Your task to perform on an android device: Go to privacy settings Image 0: 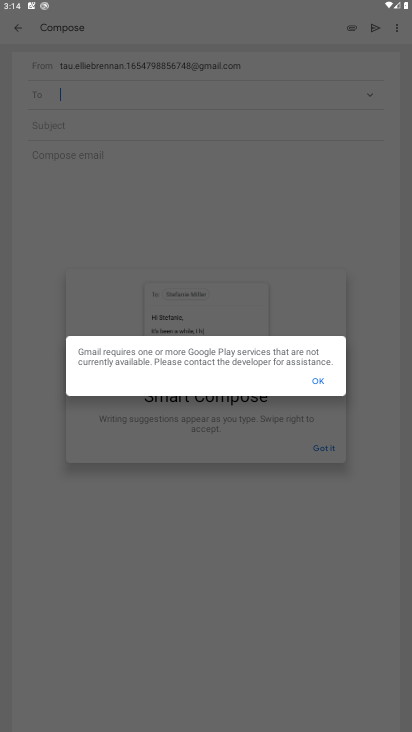
Step 0: press home button
Your task to perform on an android device: Go to privacy settings Image 1: 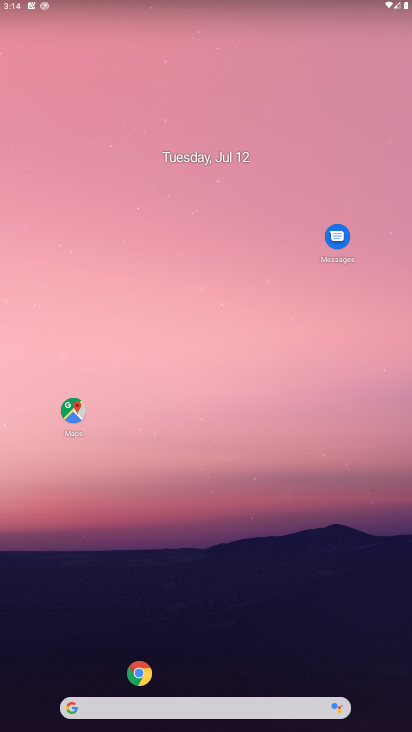
Step 1: drag from (29, 702) to (253, 4)
Your task to perform on an android device: Go to privacy settings Image 2: 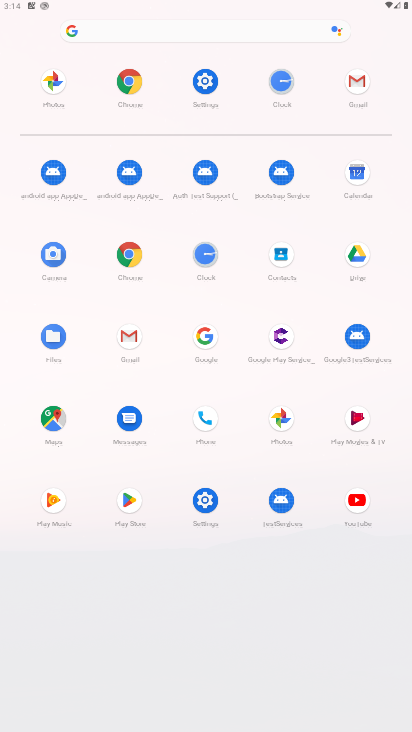
Step 2: click (198, 502)
Your task to perform on an android device: Go to privacy settings Image 3: 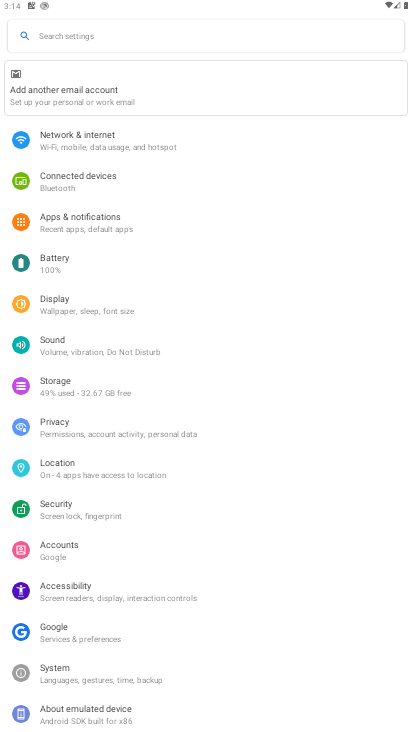
Step 3: click (99, 424)
Your task to perform on an android device: Go to privacy settings Image 4: 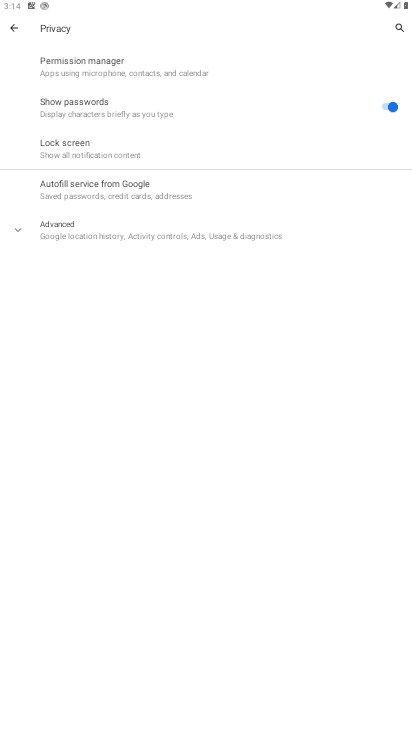
Step 4: task complete